Your task to perform on an android device: see creations saved in the google photos Image 0: 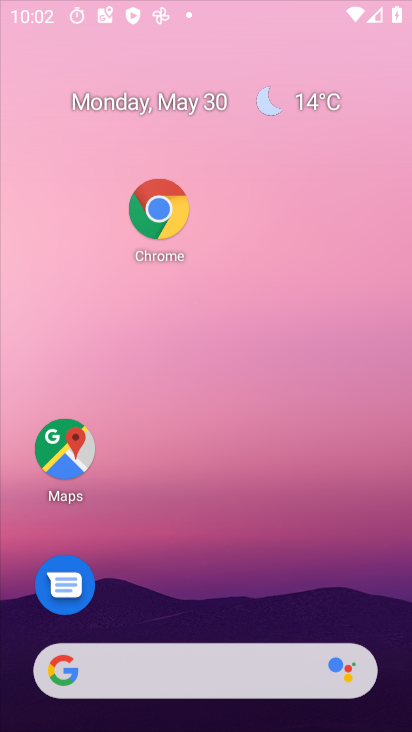
Step 0: drag from (320, 188) to (349, 8)
Your task to perform on an android device: see creations saved in the google photos Image 1: 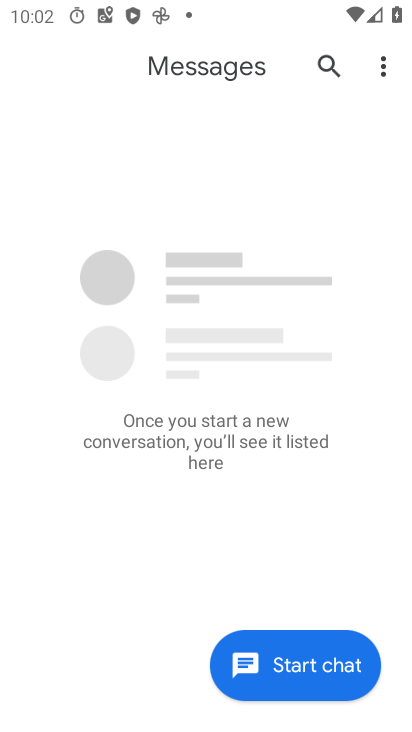
Step 1: press home button
Your task to perform on an android device: see creations saved in the google photos Image 2: 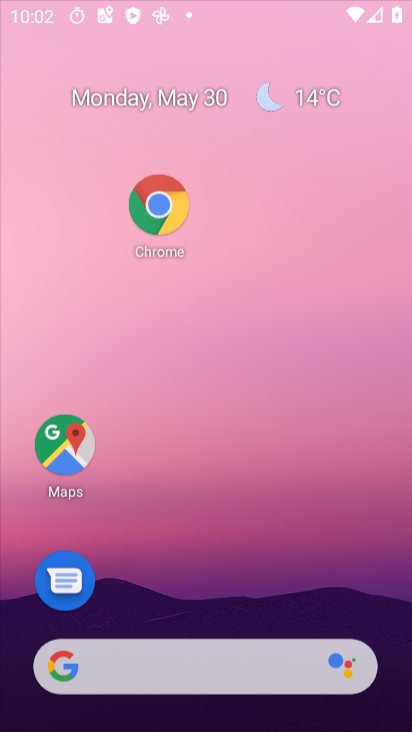
Step 2: drag from (188, 567) to (277, 46)
Your task to perform on an android device: see creations saved in the google photos Image 3: 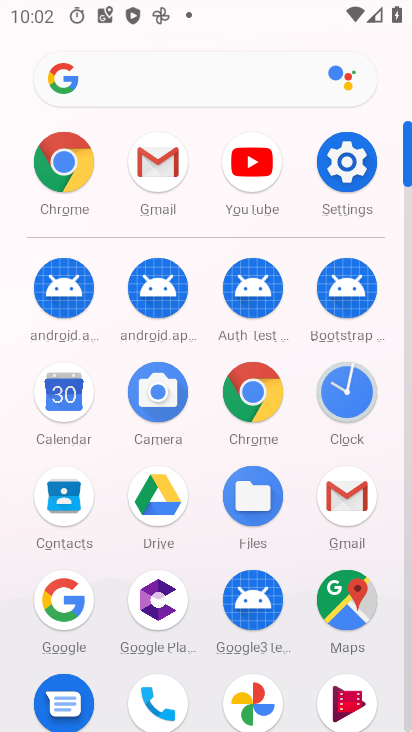
Step 3: click (256, 686)
Your task to perform on an android device: see creations saved in the google photos Image 4: 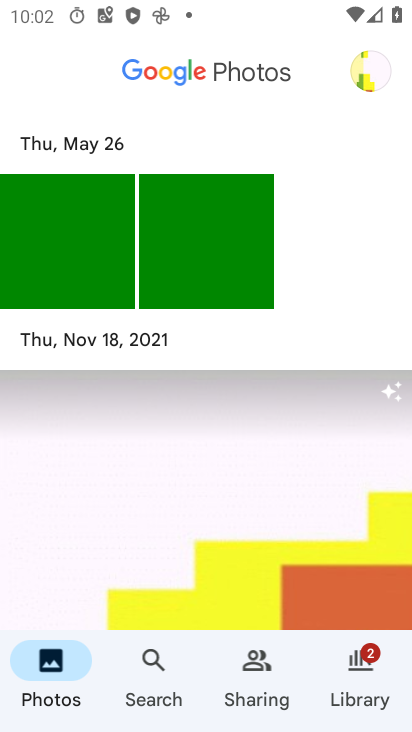
Step 4: click (380, 62)
Your task to perform on an android device: see creations saved in the google photos Image 5: 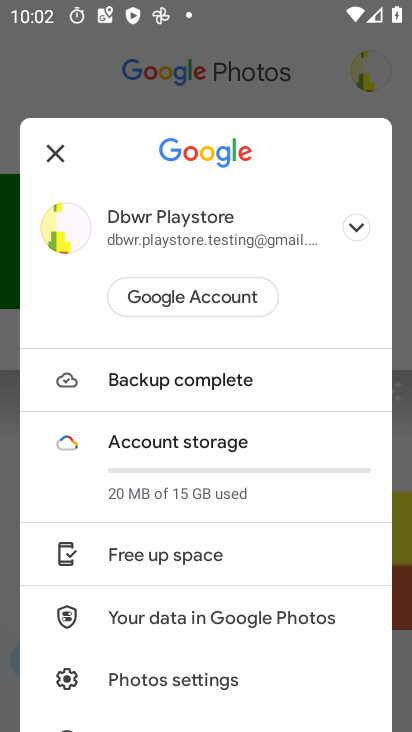
Step 5: click (171, 674)
Your task to perform on an android device: see creations saved in the google photos Image 6: 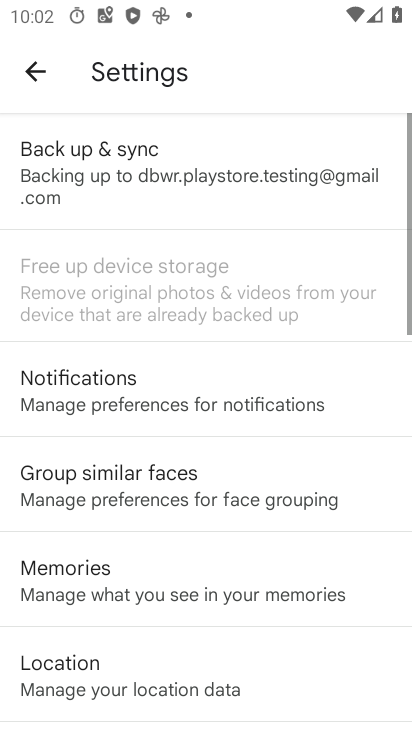
Step 6: drag from (138, 594) to (270, 32)
Your task to perform on an android device: see creations saved in the google photos Image 7: 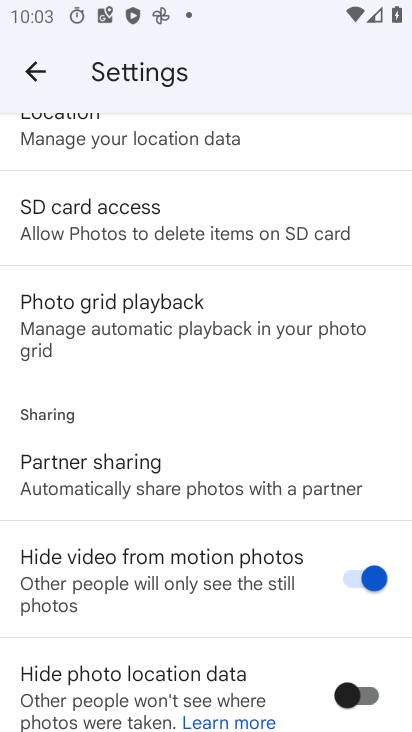
Step 7: drag from (177, 193) to (182, 623)
Your task to perform on an android device: see creations saved in the google photos Image 8: 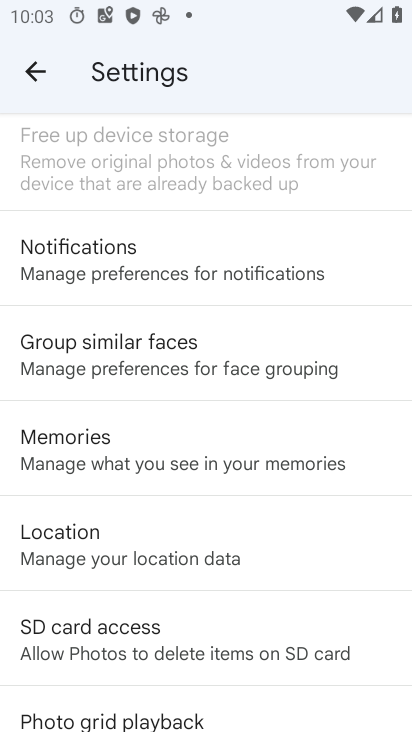
Step 8: click (29, 68)
Your task to perform on an android device: see creations saved in the google photos Image 9: 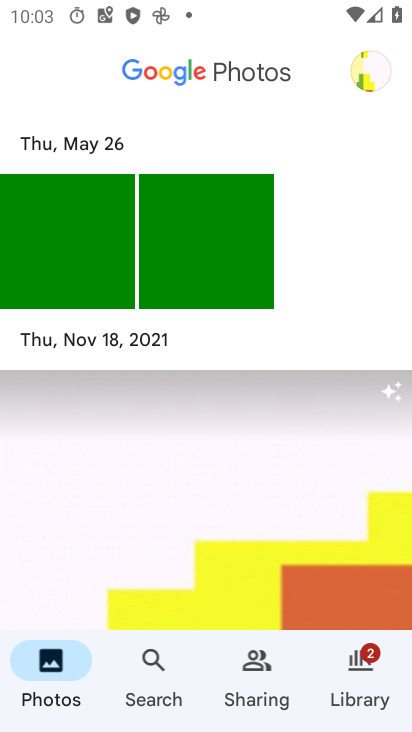
Step 9: click (139, 649)
Your task to perform on an android device: see creations saved in the google photos Image 10: 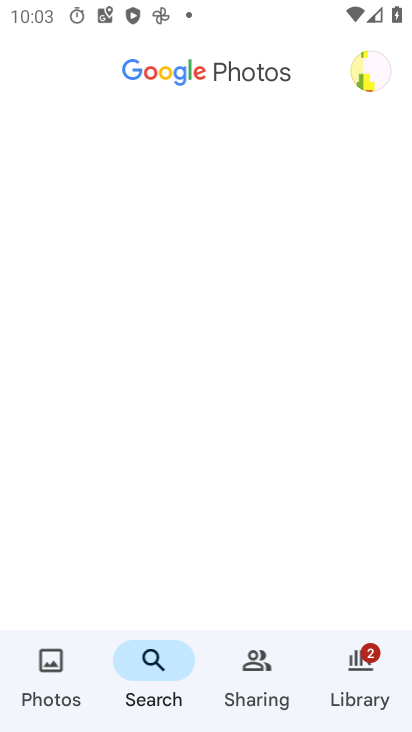
Step 10: drag from (196, 447) to (293, 68)
Your task to perform on an android device: see creations saved in the google photos Image 11: 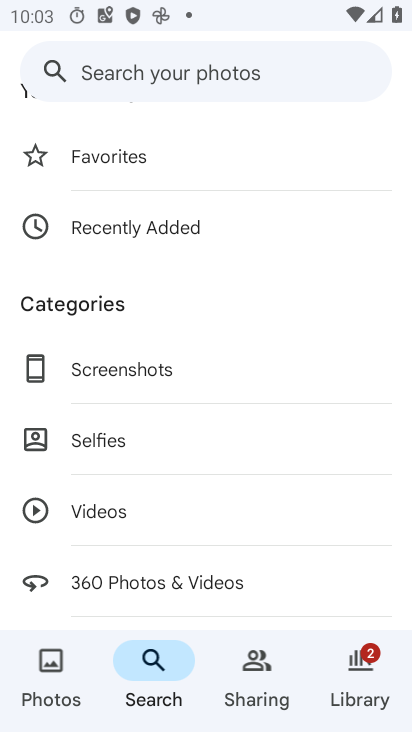
Step 11: drag from (169, 547) to (258, 52)
Your task to perform on an android device: see creations saved in the google photos Image 12: 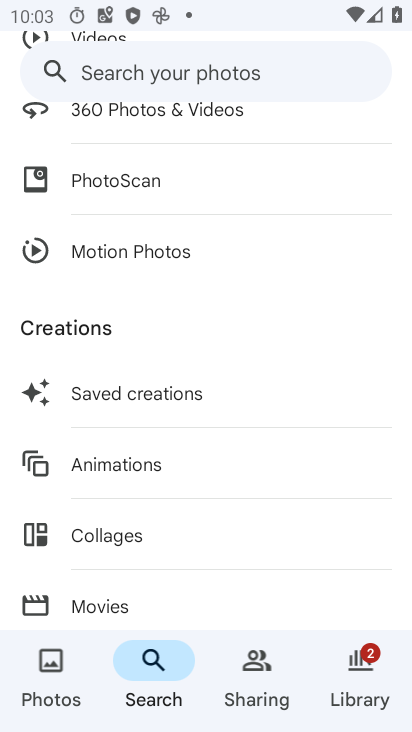
Step 12: drag from (126, 592) to (200, 343)
Your task to perform on an android device: see creations saved in the google photos Image 13: 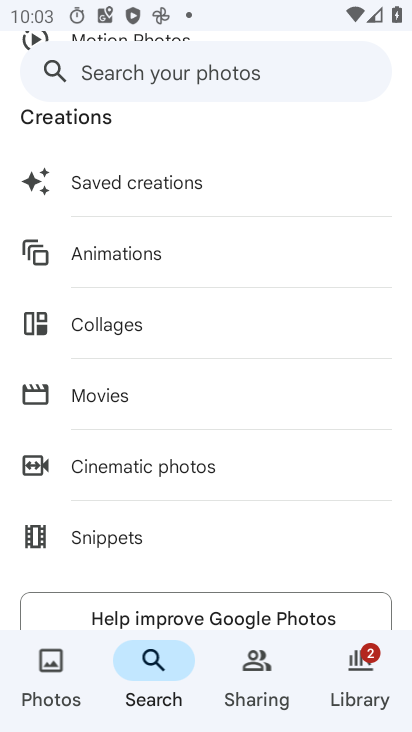
Step 13: click (160, 188)
Your task to perform on an android device: see creations saved in the google photos Image 14: 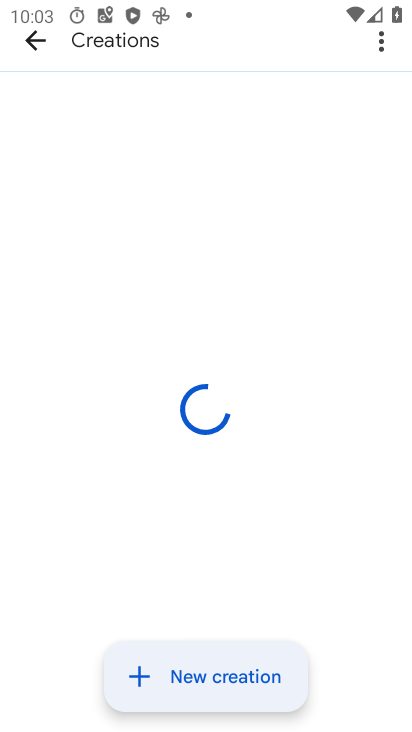
Step 14: drag from (171, 445) to (233, 161)
Your task to perform on an android device: see creations saved in the google photos Image 15: 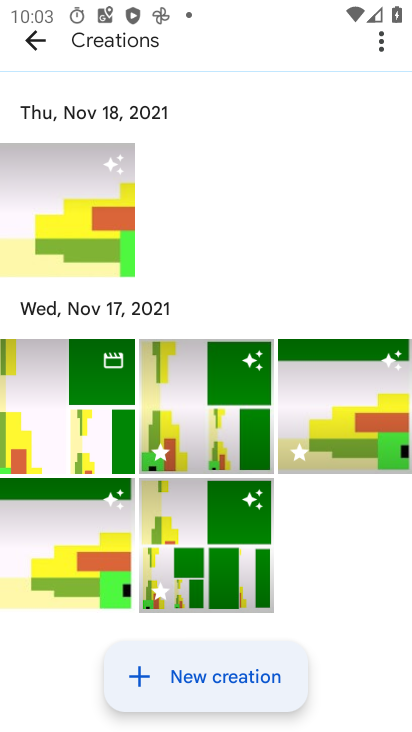
Step 15: drag from (299, 537) to (299, 261)
Your task to perform on an android device: see creations saved in the google photos Image 16: 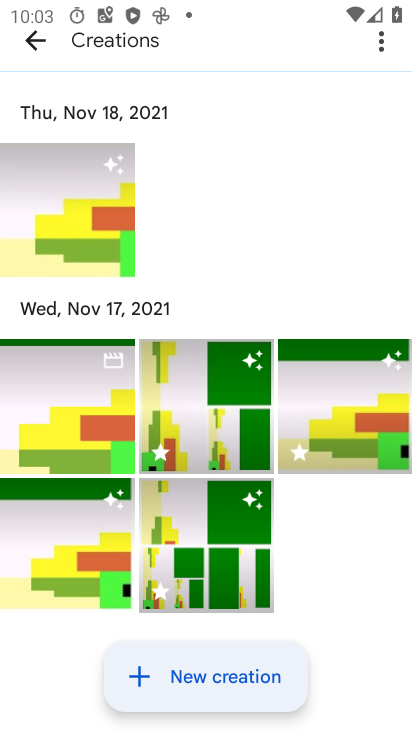
Step 16: click (97, 542)
Your task to perform on an android device: see creations saved in the google photos Image 17: 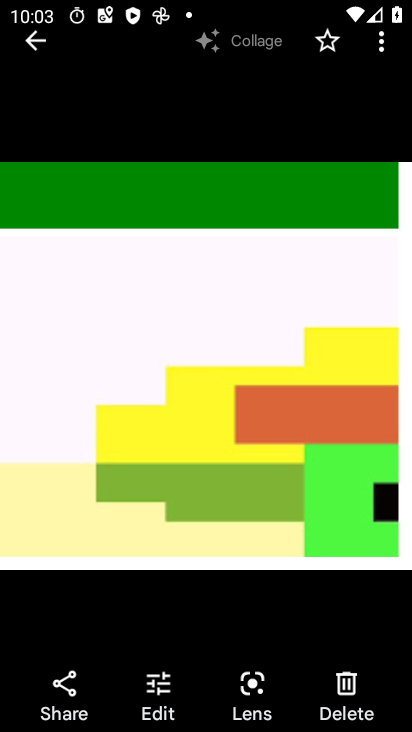
Step 17: task complete